Your task to perform on an android device: What's on my calendar tomorrow? Image 0: 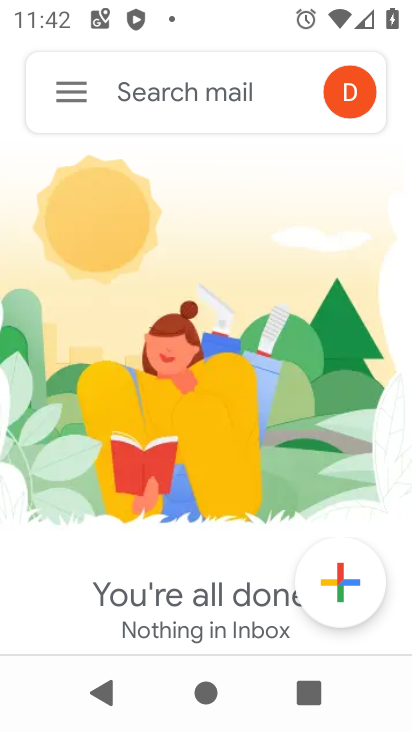
Step 0: press home button
Your task to perform on an android device: What's on my calendar tomorrow? Image 1: 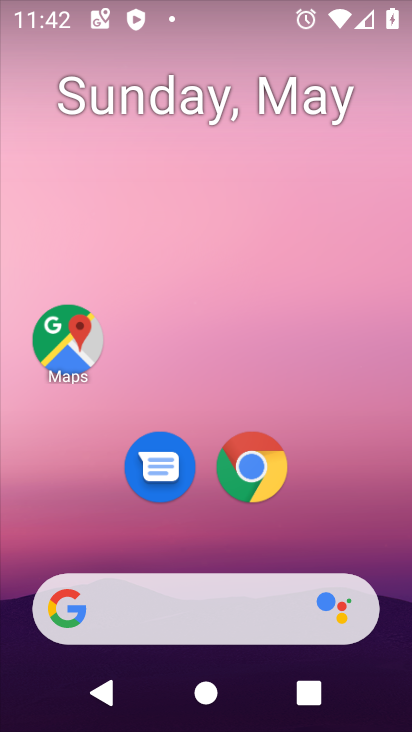
Step 1: drag from (383, 561) to (366, 4)
Your task to perform on an android device: What's on my calendar tomorrow? Image 2: 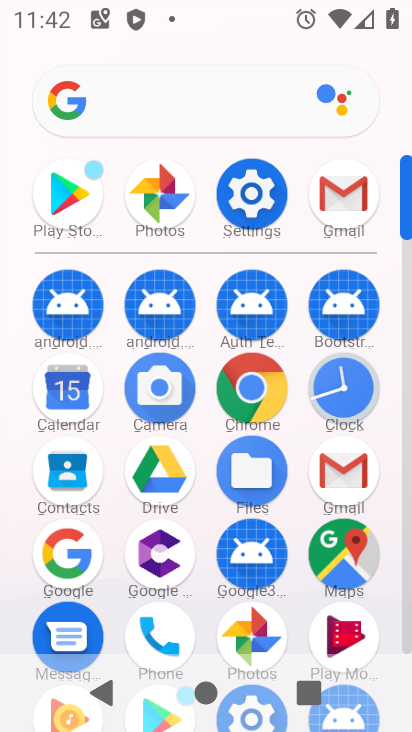
Step 2: click (77, 400)
Your task to perform on an android device: What's on my calendar tomorrow? Image 3: 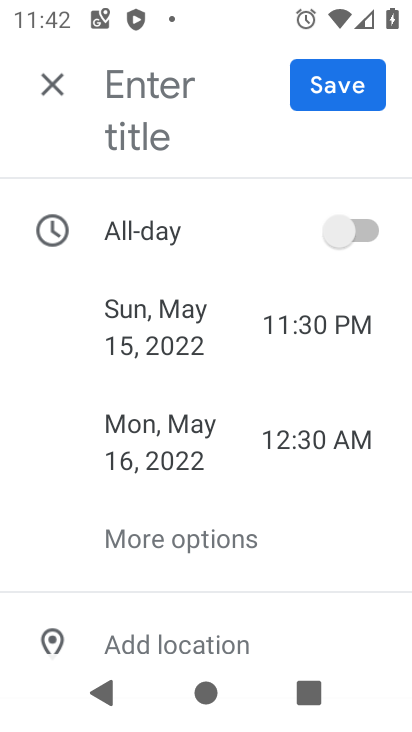
Step 3: click (50, 84)
Your task to perform on an android device: What's on my calendar tomorrow? Image 4: 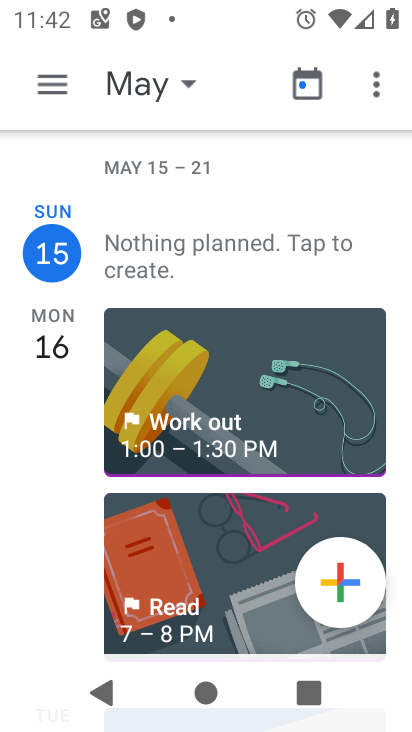
Step 4: drag from (259, 517) to (266, 229)
Your task to perform on an android device: What's on my calendar tomorrow? Image 5: 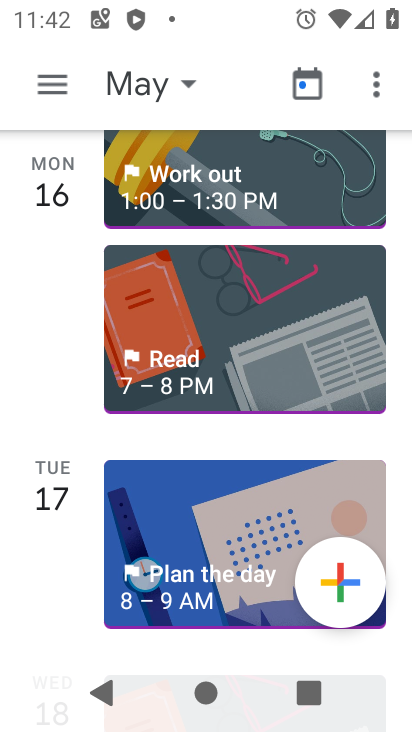
Step 5: click (219, 203)
Your task to perform on an android device: What's on my calendar tomorrow? Image 6: 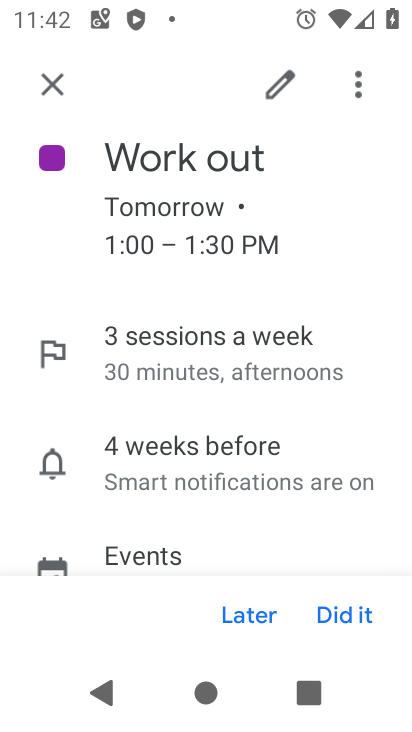
Step 6: task complete